Your task to perform on an android device: find snoozed emails in the gmail app Image 0: 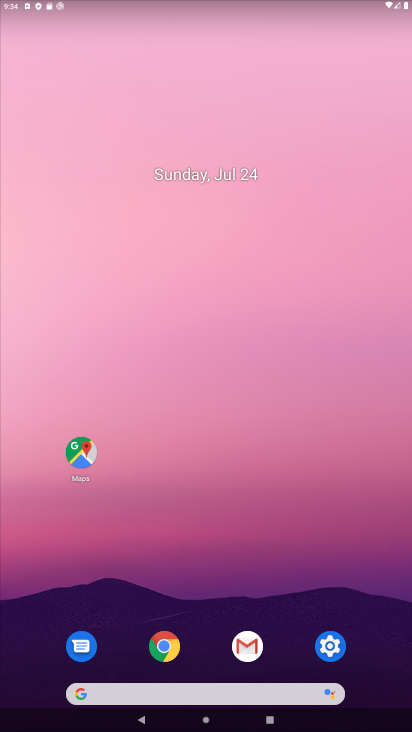
Step 0: click (254, 651)
Your task to perform on an android device: find snoozed emails in the gmail app Image 1: 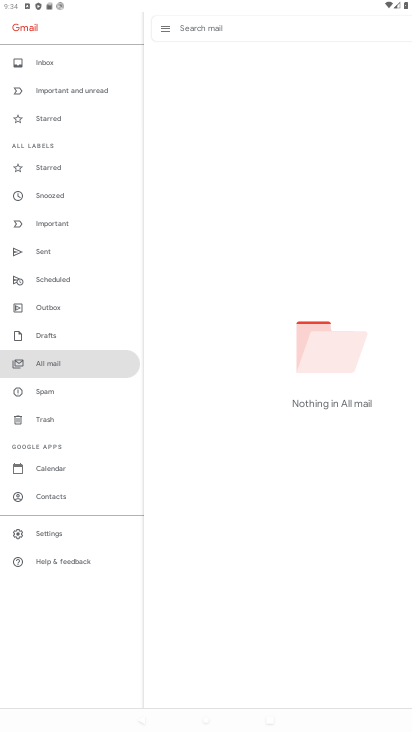
Step 1: click (65, 193)
Your task to perform on an android device: find snoozed emails in the gmail app Image 2: 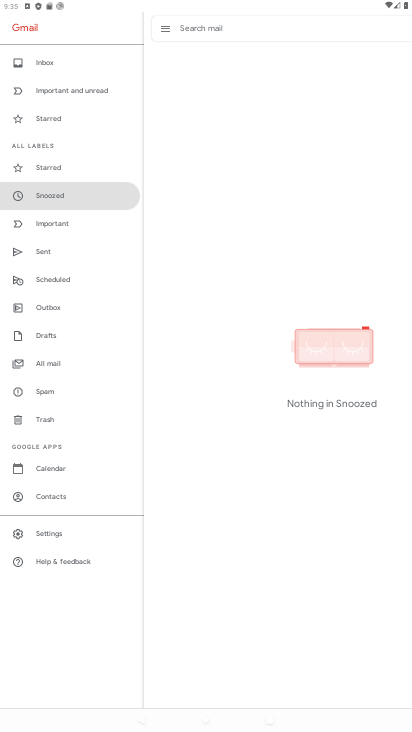
Step 2: task complete